Your task to perform on an android device: change text size in settings app Image 0: 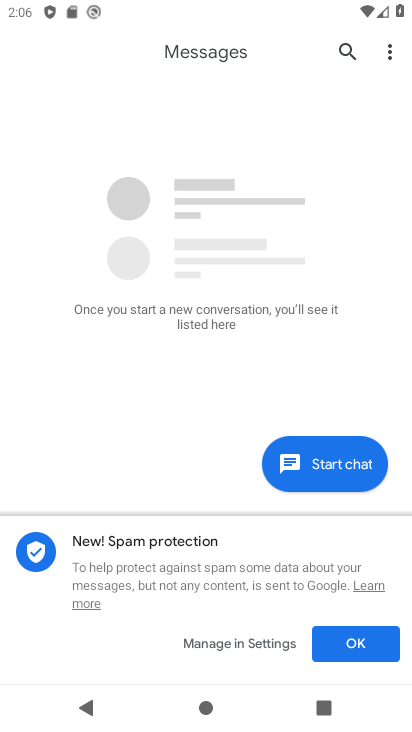
Step 0: press home button
Your task to perform on an android device: change text size in settings app Image 1: 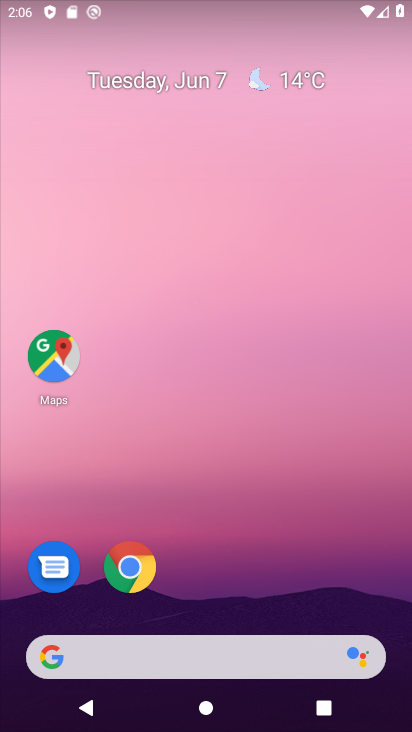
Step 1: drag from (218, 568) to (235, 140)
Your task to perform on an android device: change text size in settings app Image 2: 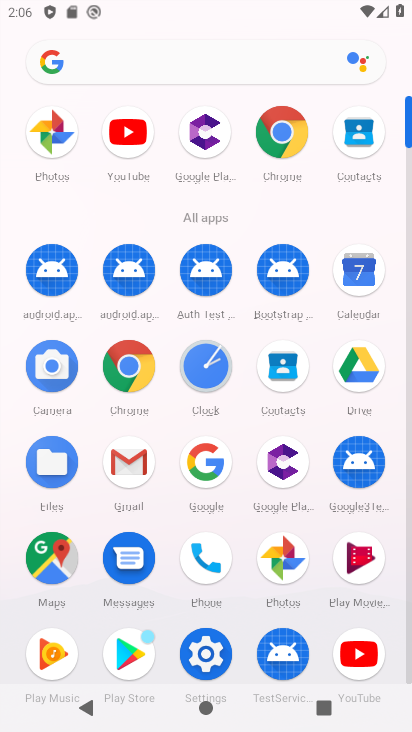
Step 2: drag from (157, 512) to (154, 270)
Your task to perform on an android device: change text size in settings app Image 3: 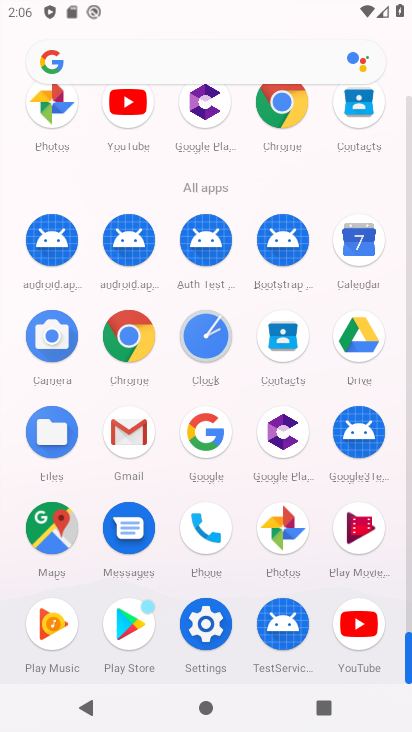
Step 3: click (207, 630)
Your task to perform on an android device: change text size in settings app Image 4: 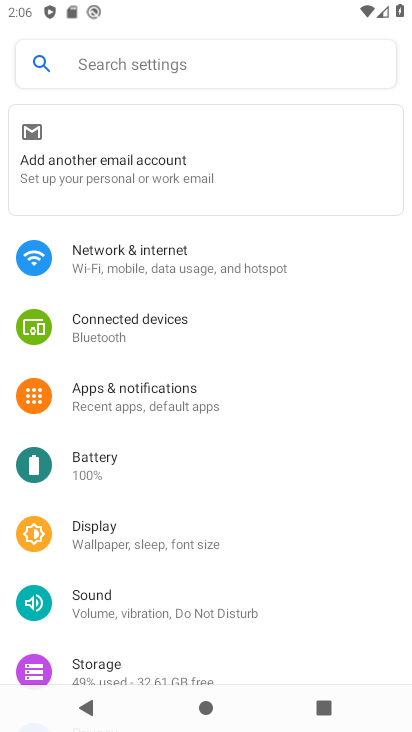
Step 4: click (185, 549)
Your task to perform on an android device: change text size in settings app Image 5: 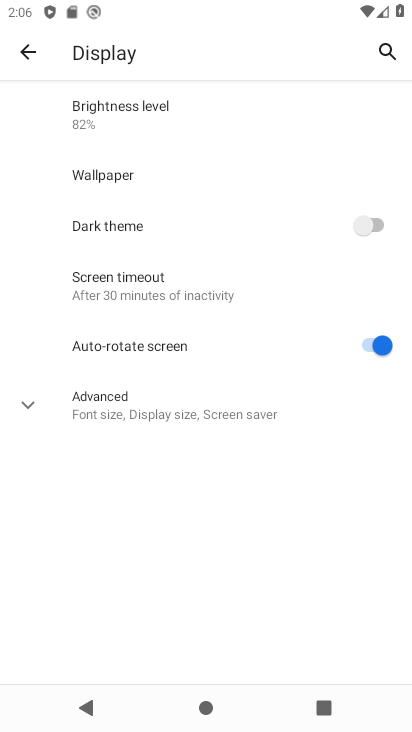
Step 5: click (176, 294)
Your task to perform on an android device: change text size in settings app Image 6: 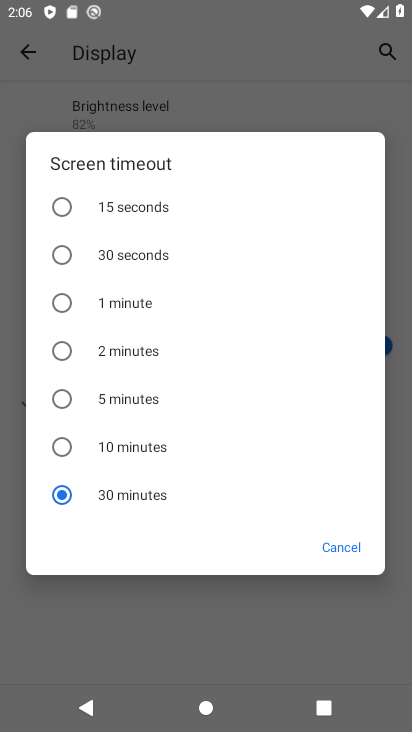
Step 6: click (131, 258)
Your task to perform on an android device: change text size in settings app Image 7: 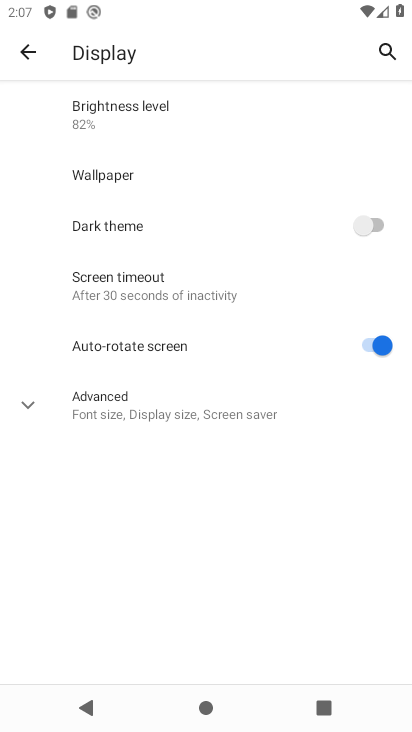
Step 7: click (166, 296)
Your task to perform on an android device: change text size in settings app Image 8: 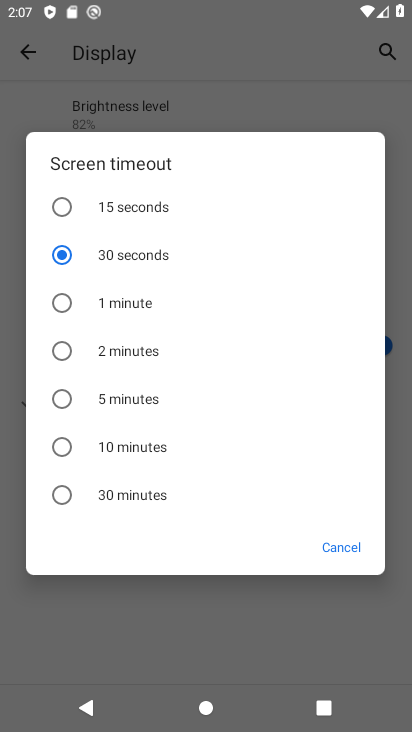
Step 8: click (113, 417)
Your task to perform on an android device: change text size in settings app Image 9: 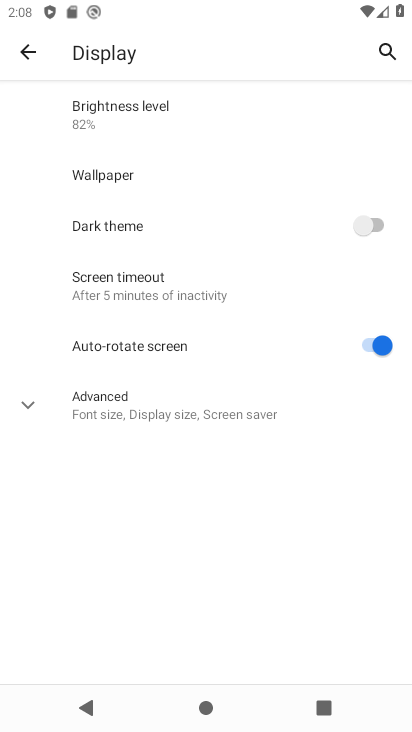
Step 9: click (186, 295)
Your task to perform on an android device: change text size in settings app Image 10: 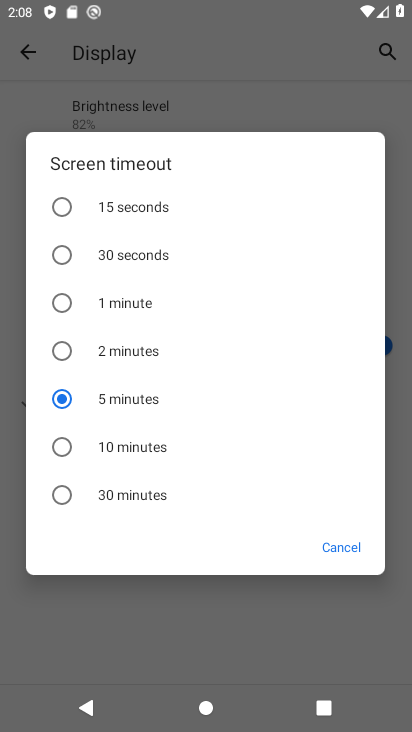
Step 10: click (132, 278)
Your task to perform on an android device: change text size in settings app Image 11: 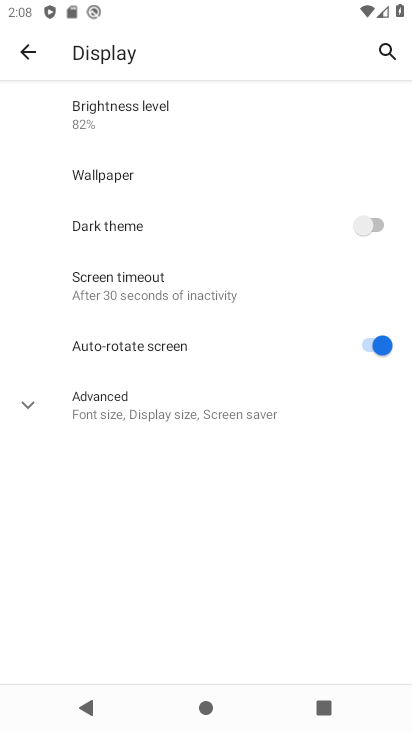
Step 11: task complete